Your task to perform on an android device: Search for seafood restaurants on Google Maps Image 0: 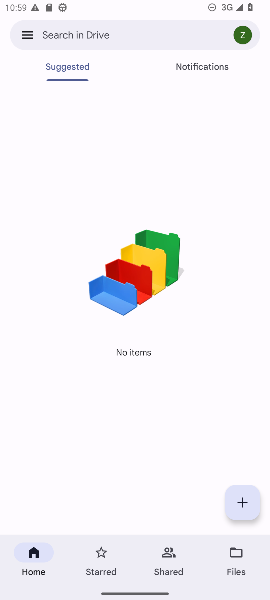
Step 0: press home button
Your task to perform on an android device: Search for seafood restaurants on Google Maps Image 1: 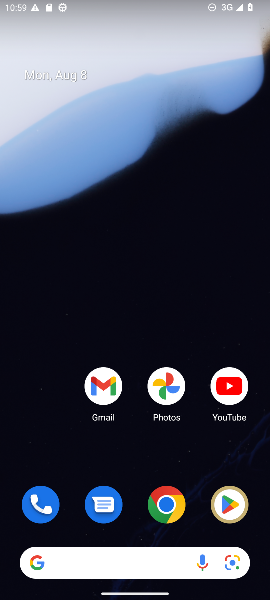
Step 1: drag from (128, 492) to (166, 1)
Your task to perform on an android device: Search for seafood restaurants on Google Maps Image 2: 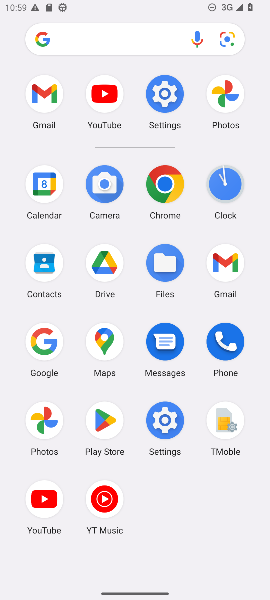
Step 2: click (98, 368)
Your task to perform on an android device: Search for seafood restaurants on Google Maps Image 3: 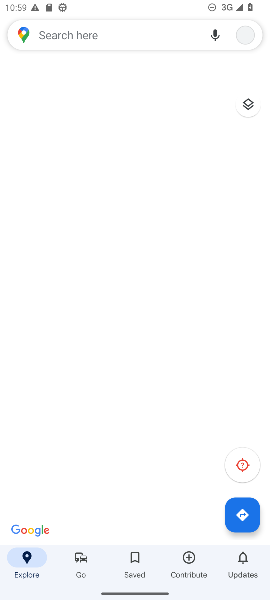
Step 3: click (117, 36)
Your task to perform on an android device: Search for seafood restaurants on Google Maps Image 4: 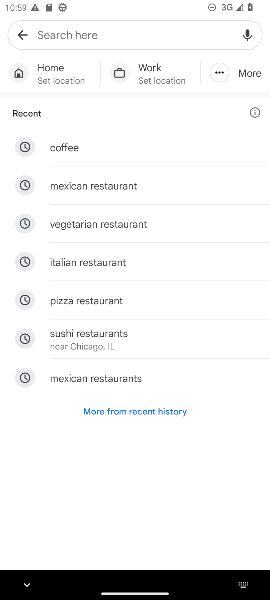
Step 4: type "seafood restaurants"
Your task to perform on an android device: Search for seafood restaurants on Google Maps Image 5: 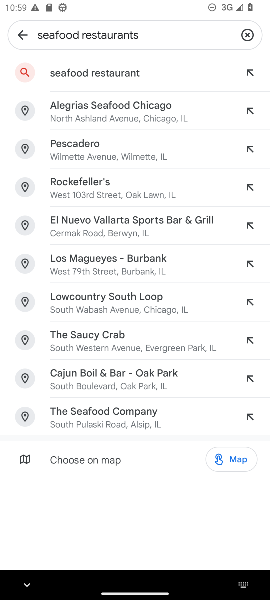
Step 5: click (96, 79)
Your task to perform on an android device: Search for seafood restaurants on Google Maps Image 6: 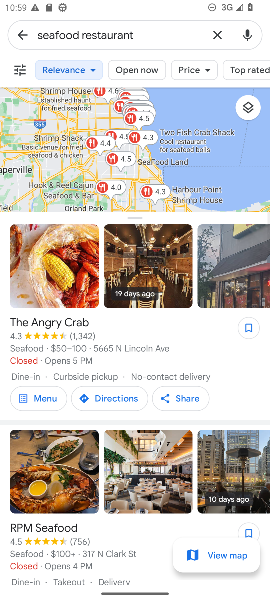
Step 6: task complete